Your task to perform on an android device: check android version Image 0: 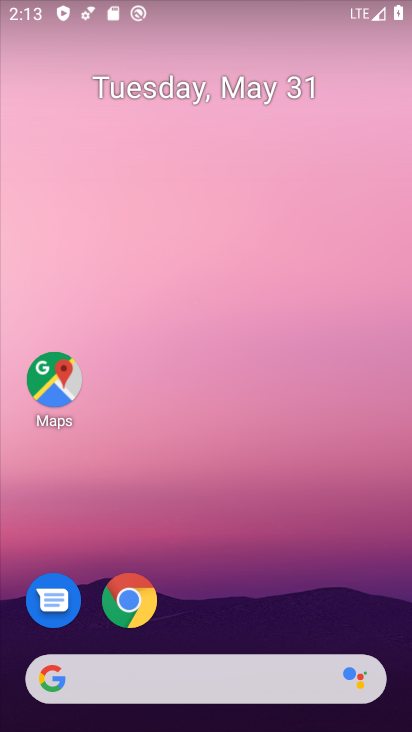
Step 0: drag from (209, 621) to (216, 16)
Your task to perform on an android device: check android version Image 1: 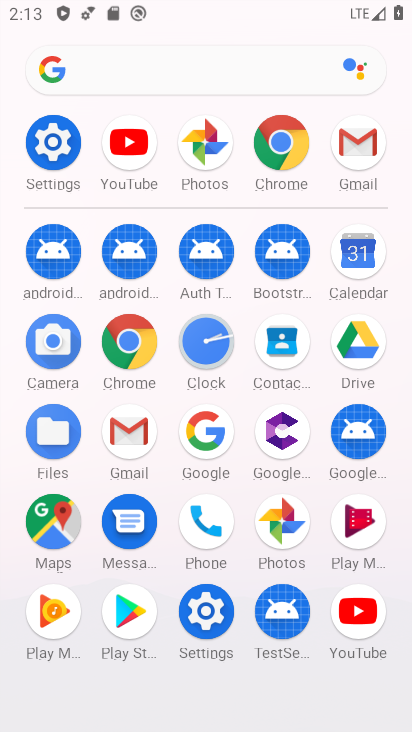
Step 1: click (53, 130)
Your task to perform on an android device: check android version Image 2: 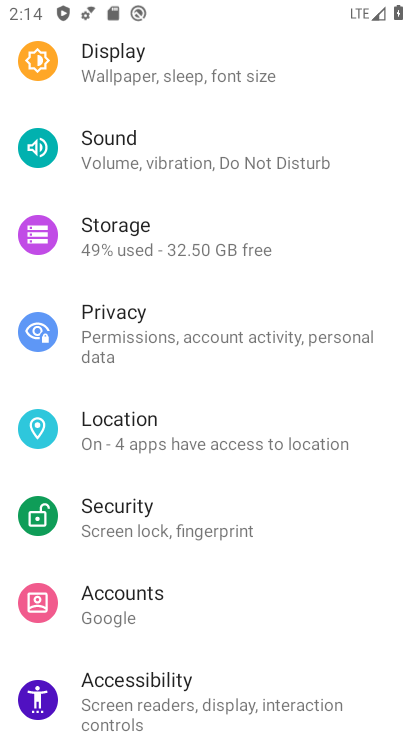
Step 2: drag from (192, 684) to (201, 97)
Your task to perform on an android device: check android version Image 3: 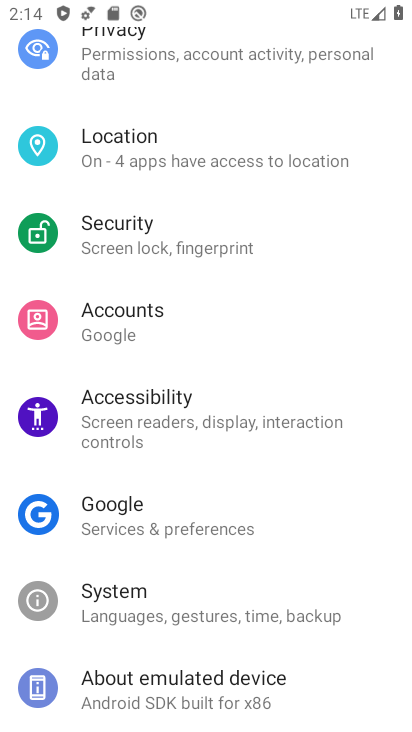
Step 3: click (180, 671)
Your task to perform on an android device: check android version Image 4: 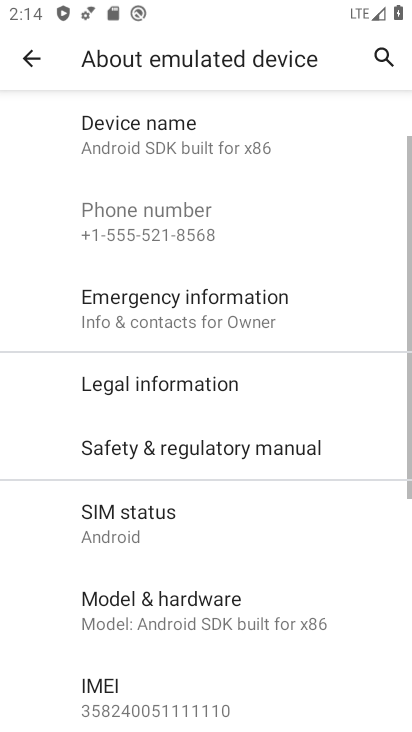
Step 4: drag from (150, 652) to (180, 154)
Your task to perform on an android device: check android version Image 5: 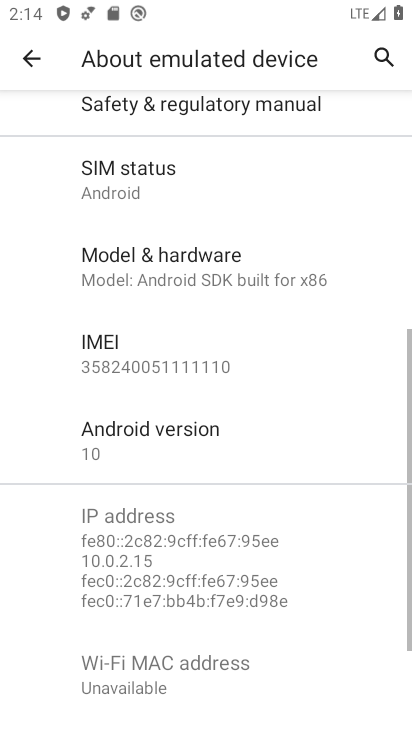
Step 5: click (181, 442)
Your task to perform on an android device: check android version Image 6: 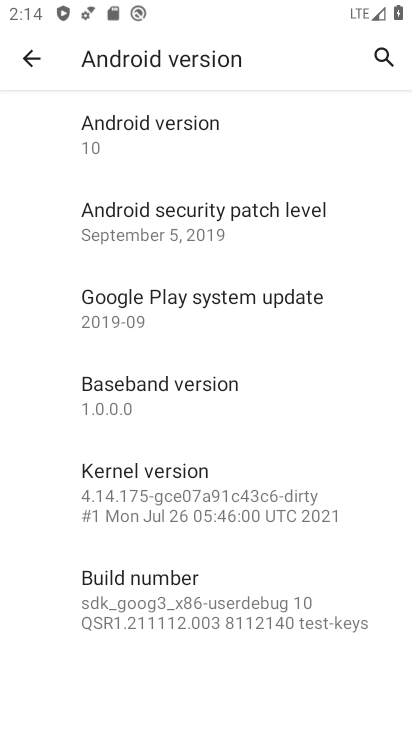
Step 6: task complete